Your task to perform on an android device: toggle sleep mode Image 0: 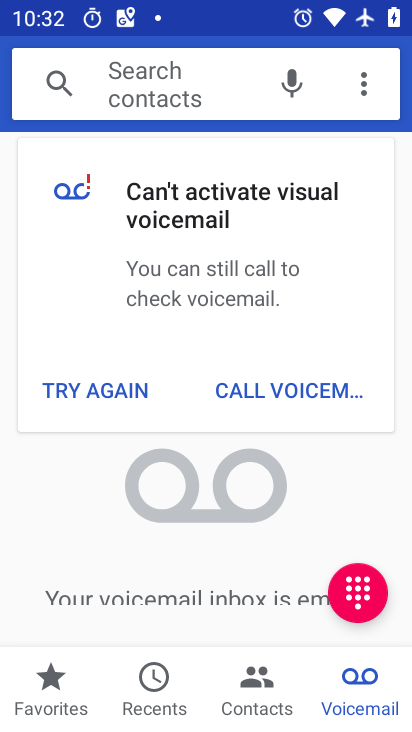
Step 0: press home button
Your task to perform on an android device: toggle sleep mode Image 1: 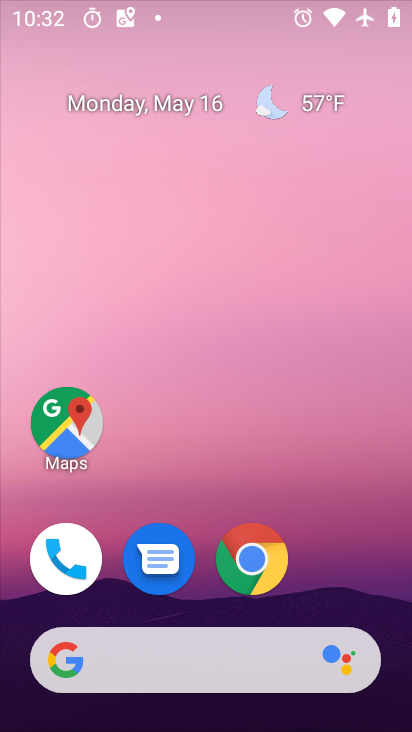
Step 1: drag from (326, 501) to (308, 86)
Your task to perform on an android device: toggle sleep mode Image 2: 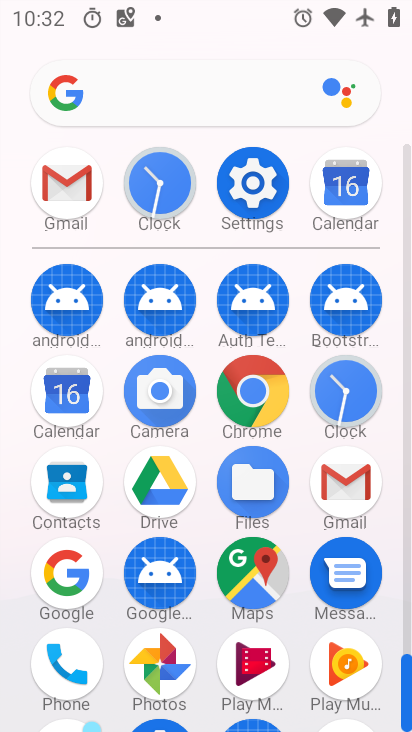
Step 2: click (271, 200)
Your task to perform on an android device: toggle sleep mode Image 3: 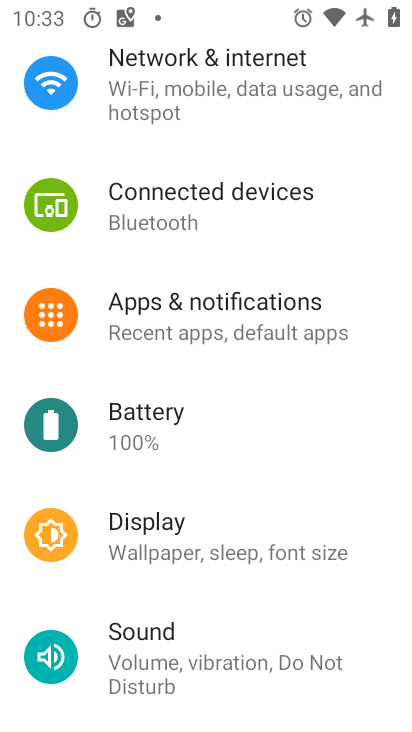
Step 3: drag from (263, 169) to (337, 121)
Your task to perform on an android device: toggle sleep mode Image 4: 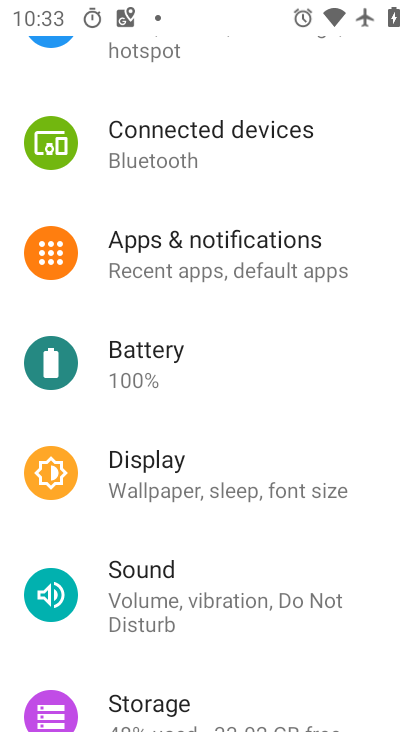
Step 4: click (200, 466)
Your task to perform on an android device: toggle sleep mode Image 5: 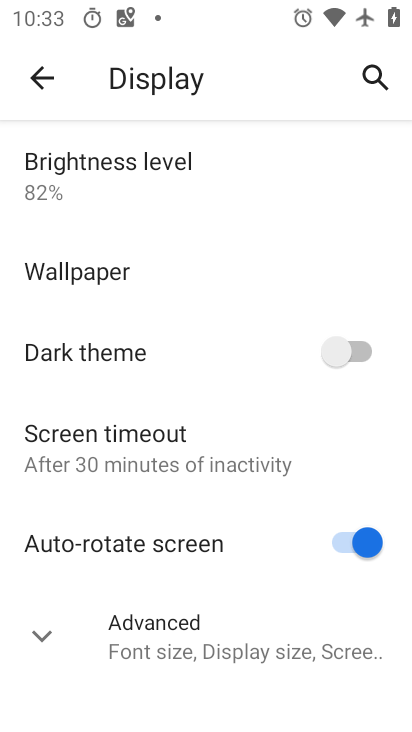
Step 5: click (189, 426)
Your task to perform on an android device: toggle sleep mode Image 6: 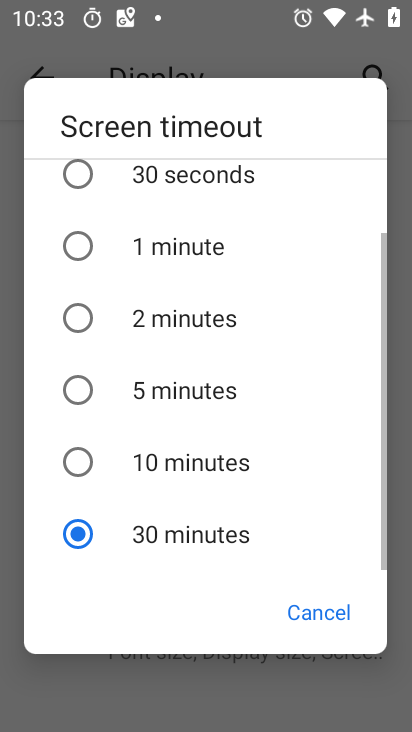
Step 6: click (210, 492)
Your task to perform on an android device: toggle sleep mode Image 7: 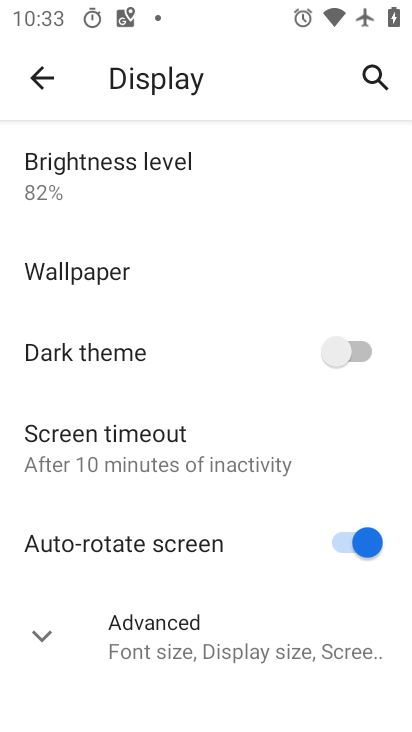
Step 7: task complete